Your task to perform on an android device: open chrome and create a bookmark for the current page Image 0: 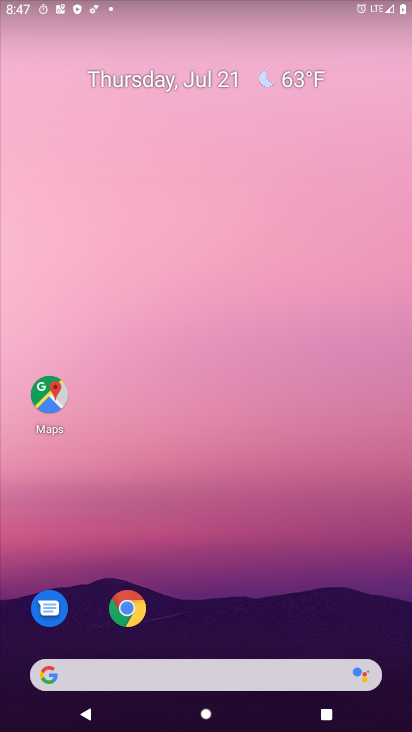
Step 0: press home button
Your task to perform on an android device: open chrome and create a bookmark for the current page Image 1: 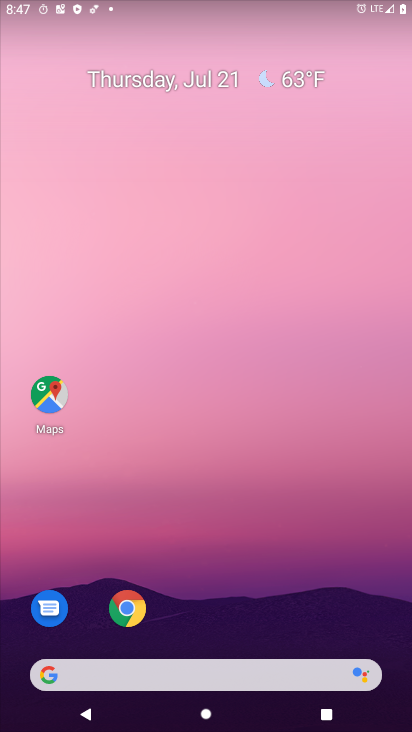
Step 1: click (133, 615)
Your task to perform on an android device: open chrome and create a bookmark for the current page Image 2: 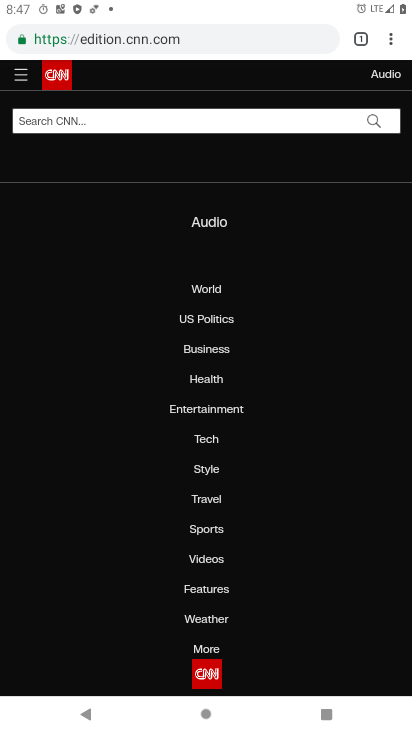
Step 2: task complete